Your task to perform on an android device: Open Google Chrome and open the bookmarks view Image 0: 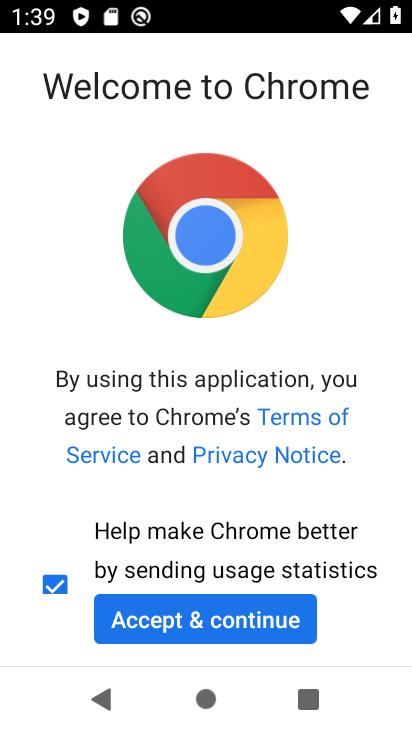
Step 0: click (187, 617)
Your task to perform on an android device: Open Google Chrome and open the bookmarks view Image 1: 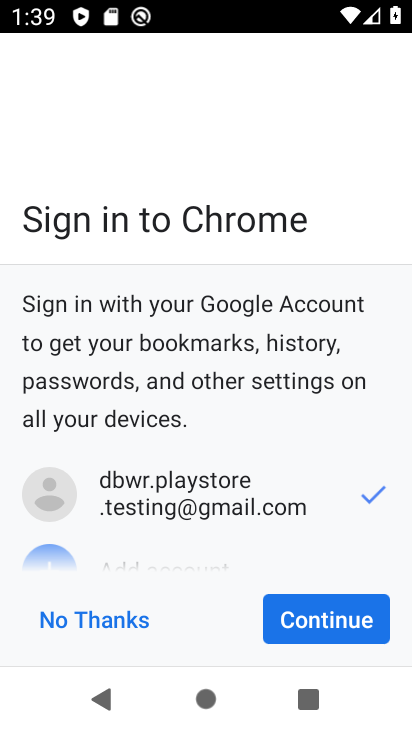
Step 1: click (367, 614)
Your task to perform on an android device: Open Google Chrome and open the bookmarks view Image 2: 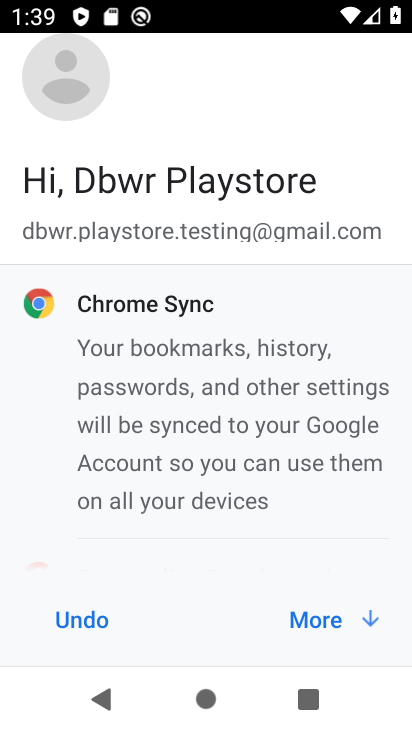
Step 2: click (367, 614)
Your task to perform on an android device: Open Google Chrome and open the bookmarks view Image 3: 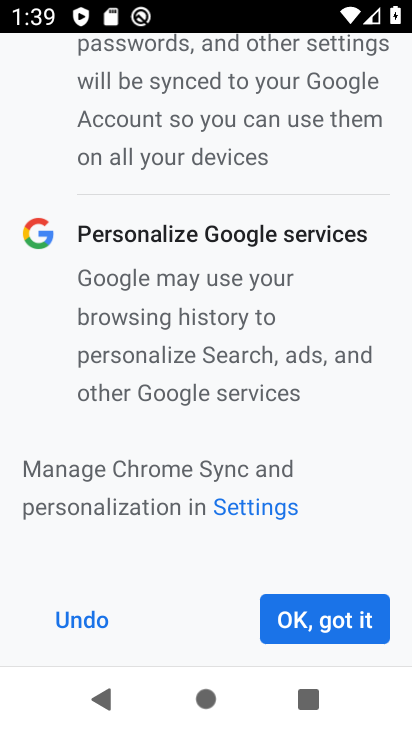
Step 3: click (367, 614)
Your task to perform on an android device: Open Google Chrome and open the bookmarks view Image 4: 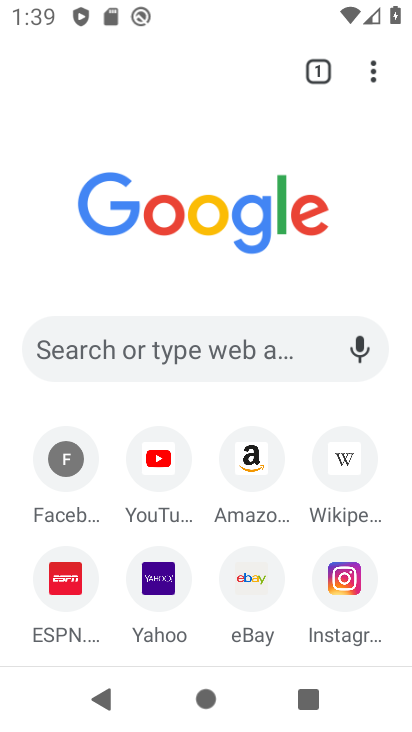
Step 4: click (391, 71)
Your task to perform on an android device: Open Google Chrome and open the bookmarks view Image 5: 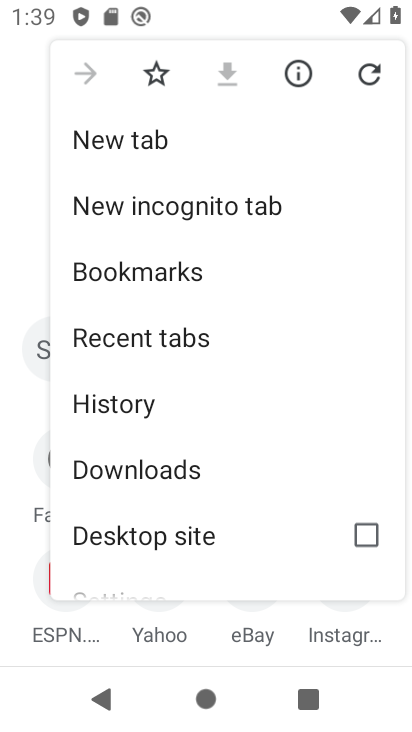
Step 5: drag from (204, 541) to (275, 159)
Your task to perform on an android device: Open Google Chrome and open the bookmarks view Image 6: 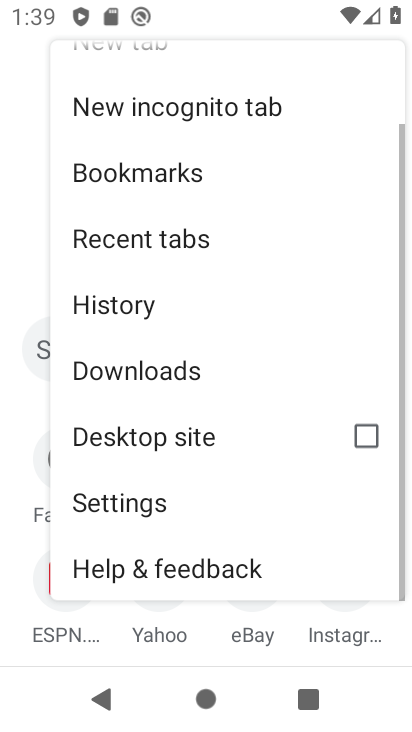
Step 6: click (223, 178)
Your task to perform on an android device: Open Google Chrome and open the bookmarks view Image 7: 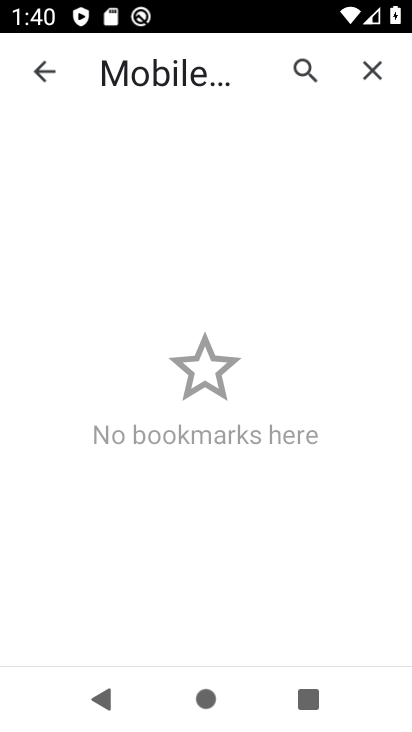
Step 7: task complete